Your task to perform on an android device: toggle show notifications on the lock screen Image 0: 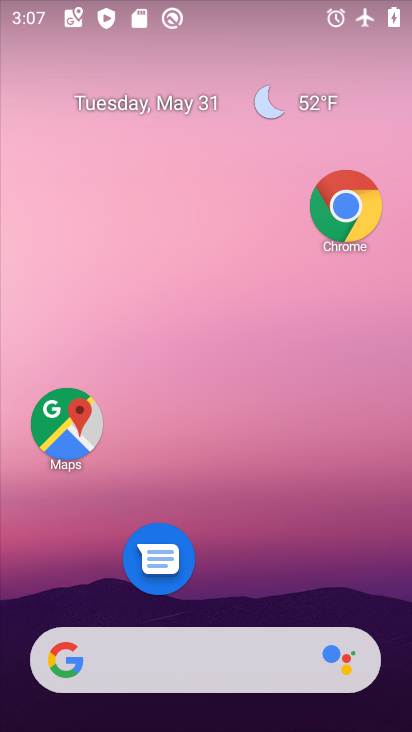
Step 0: drag from (285, 573) to (235, 110)
Your task to perform on an android device: toggle show notifications on the lock screen Image 1: 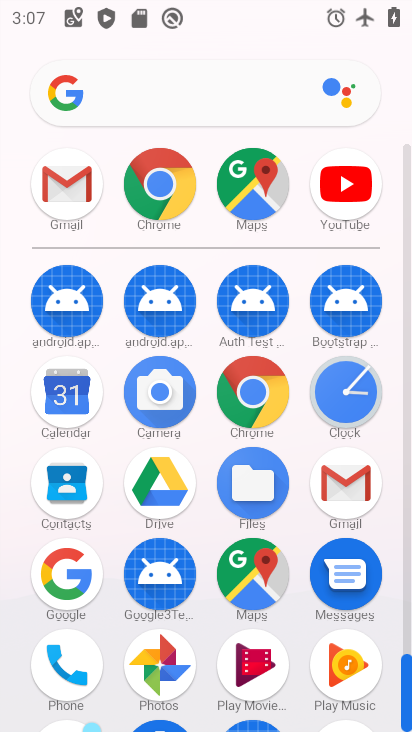
Step 1: drag from (196, 259) to (223, 90)
Your task to perform on an android device: toggle show notifications on the lock screen Image 2: 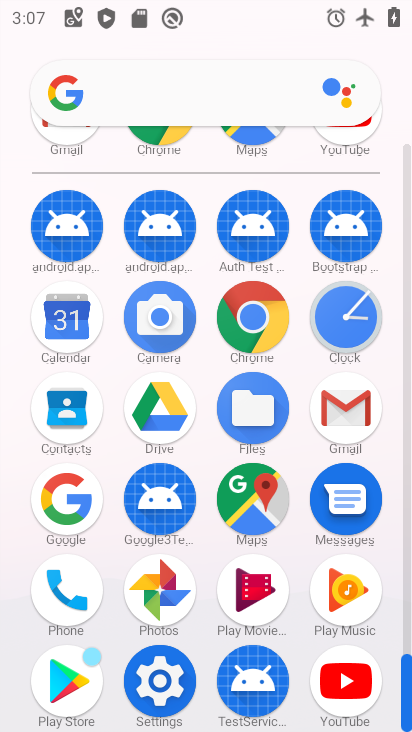
Step 2: click (167, 684)
Your task to perform on an android device: toggle show notifications on the lock screen Image 3: 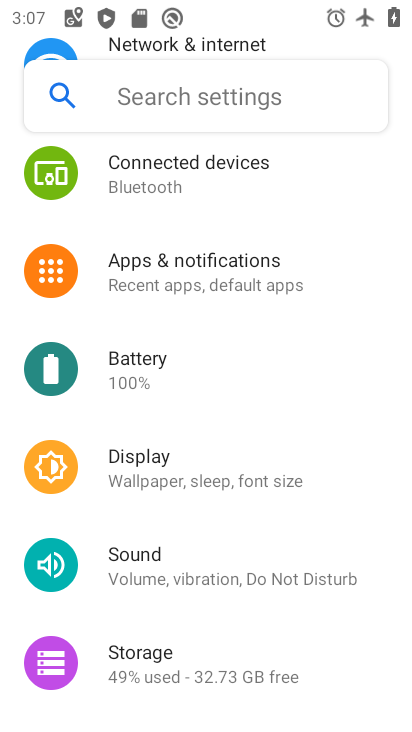
Step 3: click (245, 284)
Your task to perform on an android device: toggle show notifications on the lock screen Image 4: 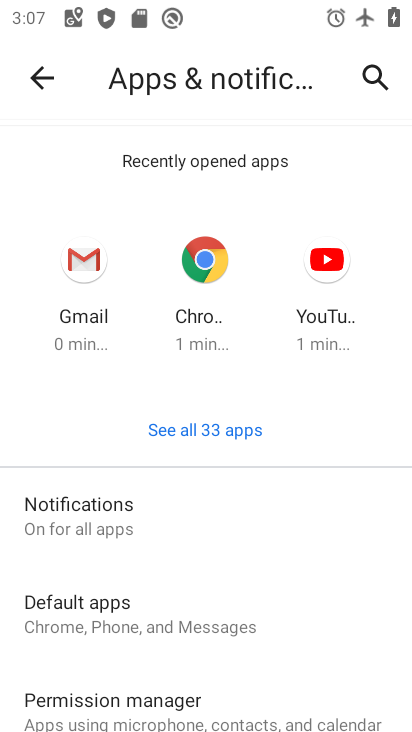
Step 4: click (198, 535)
Your task to perform on an android device: toggle show notifications on the lock screen Image 5: 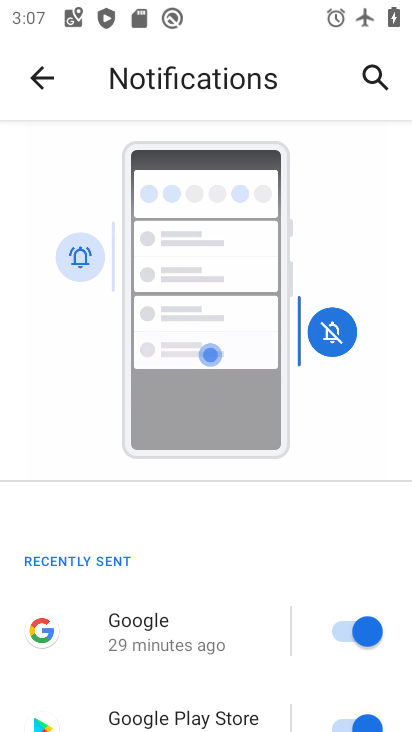
Step 5: drag from (211, 604) to (289, 173)
Your task to perform on an android device: toggle show notifications on the lock screen Image 6: 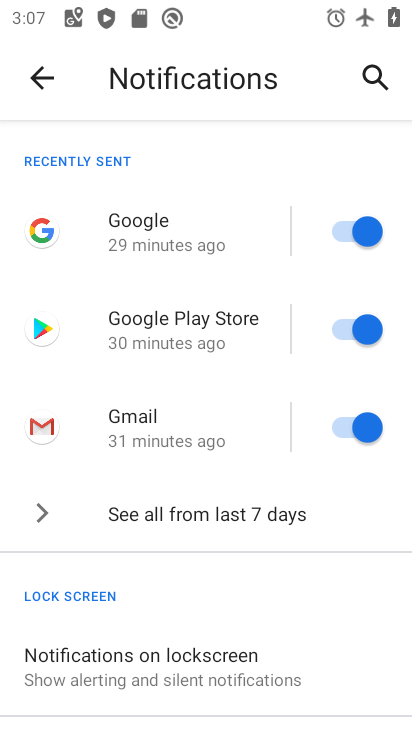
Step 6: drag from (206, 596) to (247, 292)
Your task to perform on an android device: toggle show notifications on the lock screen Image 7: 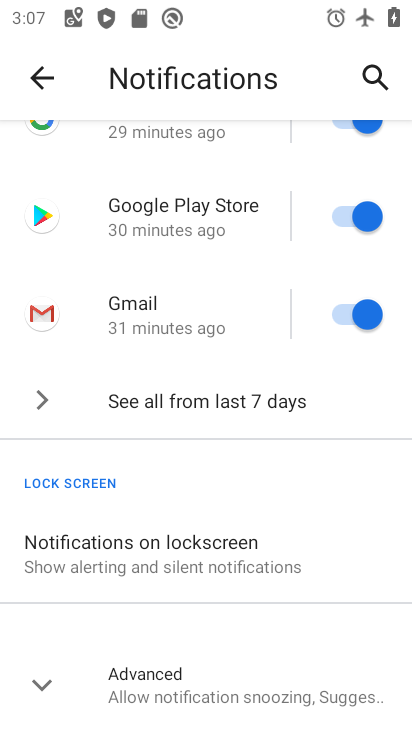
Step 7: click (172, 580)
Your task to perform on an android device: toggle show notifications on the lock screen Image 8: 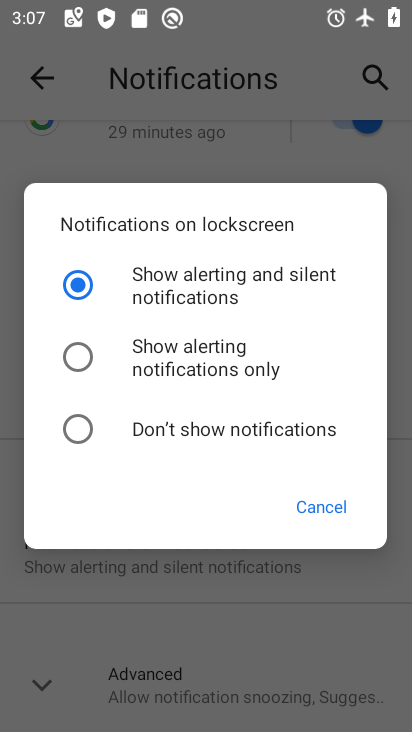
Step 8: click (186, 427)
Your task to perform on an android device: toggle show notifications on the lock screen Image 9: 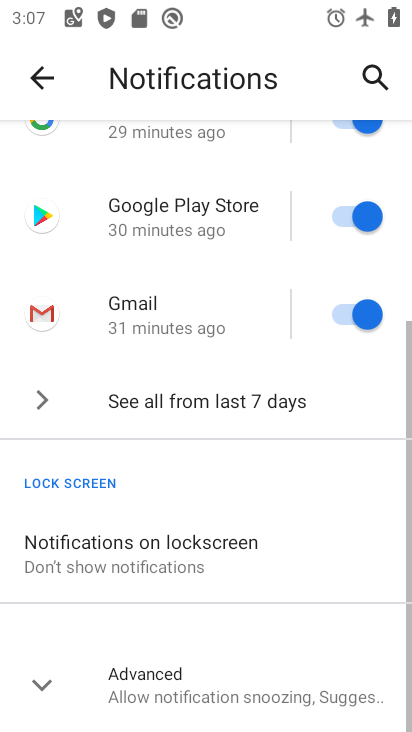
Step 9: task complete